Your task to perform on an android device: set the stopwatch Image 0: 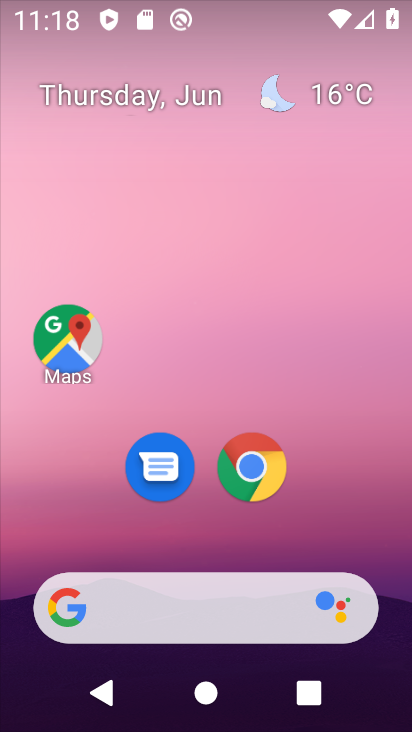
Step 0: drag from (394, 611) to (320, 60)
Your task to perform on an android device: set the stopwatch Image 1: 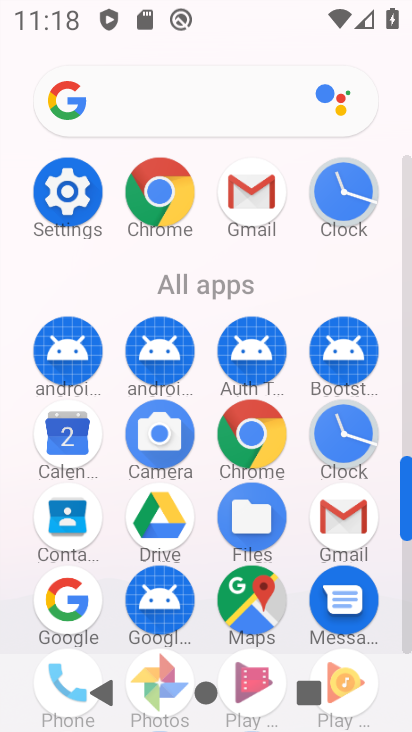
Step 1: click (344, 434)
Your task to perform on an android device: set the stopwatch Image 2: 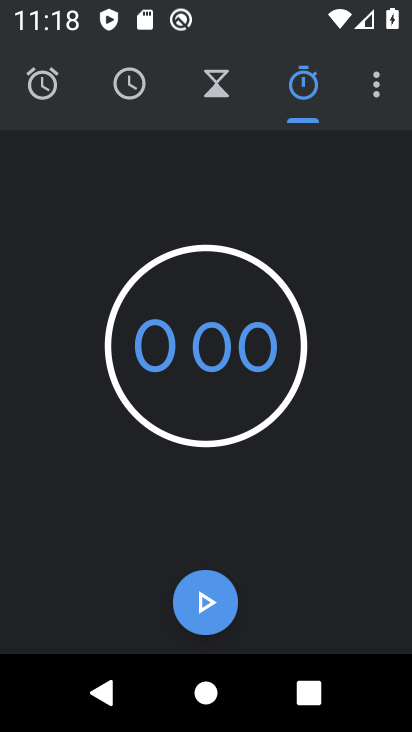
Step 2: task complete